Your task to perform on an android device: turn on bluetooth scan Image 0: 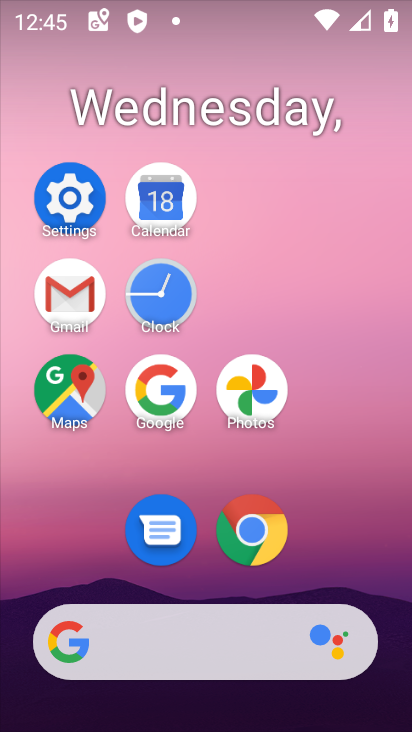
Step 0: click (71, 194)
Your task to perform on an android device: turn on bluetooth scan Image 1: 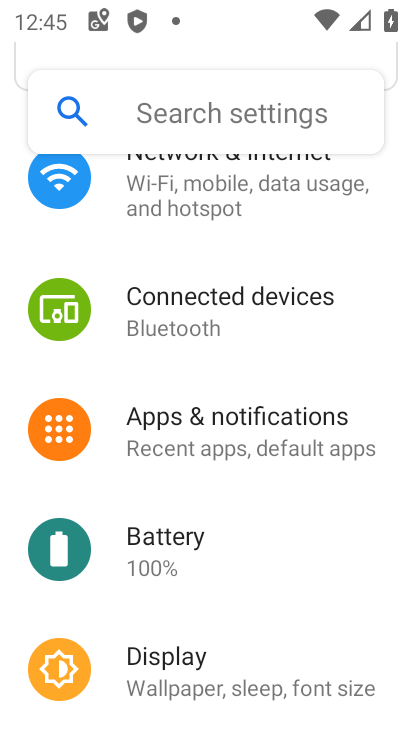
Step 1: drag from (244, 595) to (261, 197)
Your task to perform on an android device: turn on bluetooth scan Image 2: 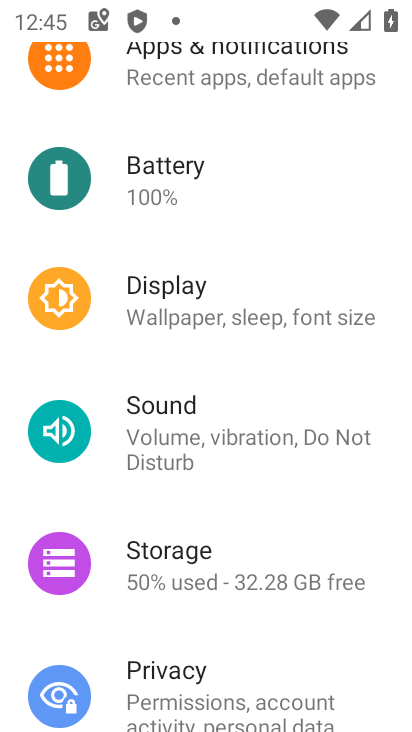
Step 2: drag from (276, 673) to (292, 318)
Your task to perform on an android device: turn on bluetooth scan Image 3: 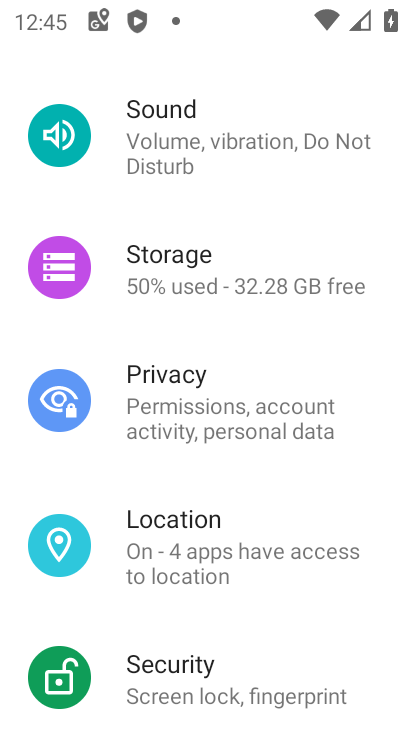
Step 3: click (233, 562)
Your task to perform on an android device: turn on bluetooth scan Image 4: 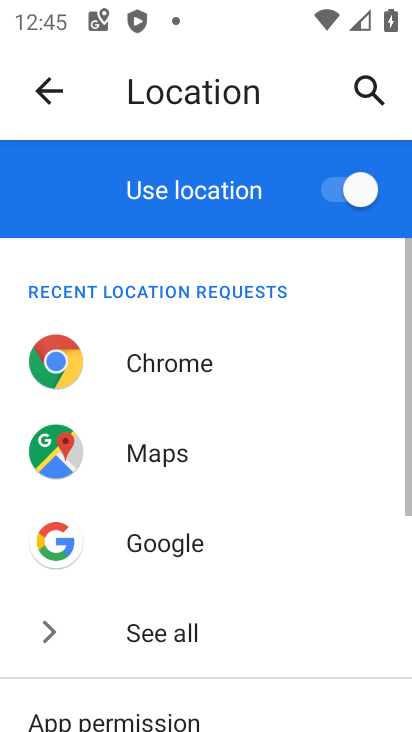
Step 4: drag from (233, 562) to (257, 206)
Your task to perform on an android device: turn on bluetooth scan Image 5: 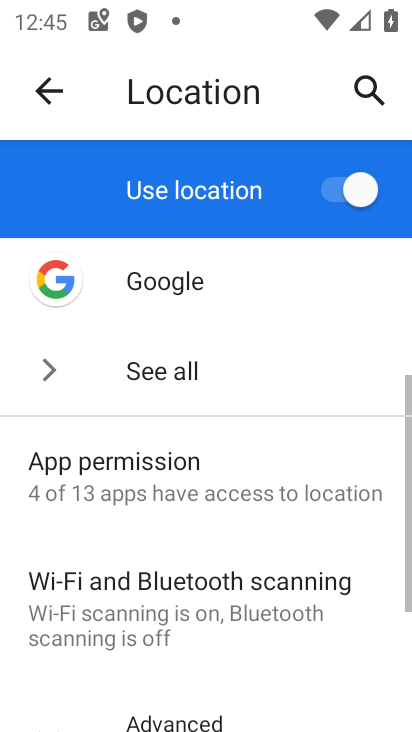
Step 5: drag from (234, 599) to (234, 276)
Your task to perform on an android device: turn on bluetooth scan Image 6: 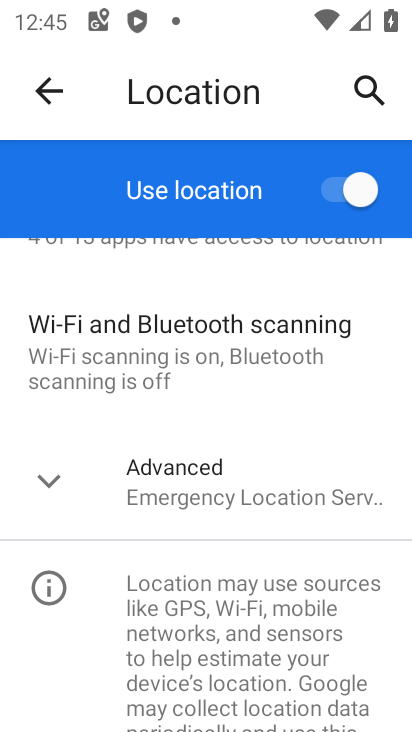
Step 6: click (210, 323)
Your task to perform on an android device: turn on bluetooth scan Image 7: 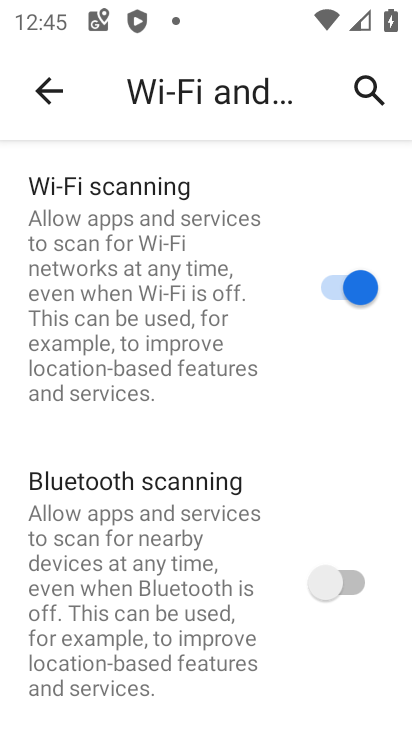
Step 7: click (346, 570)
Your task to perform on an android device: turn on bluetooth scan Image 8: 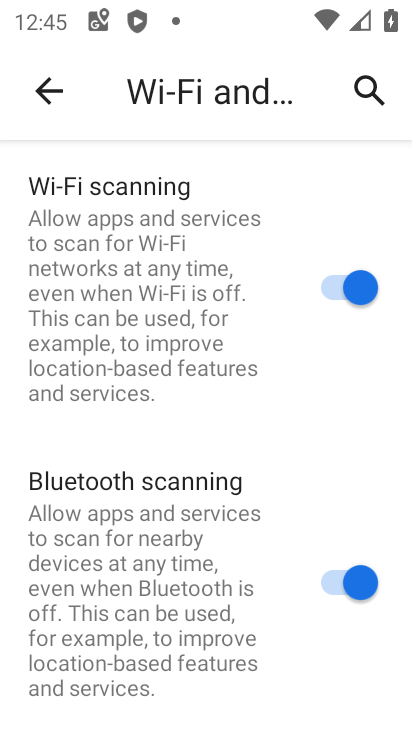
Step 8: task complete